Your task to perform on an android device: create a new album in the google photos Image 0: 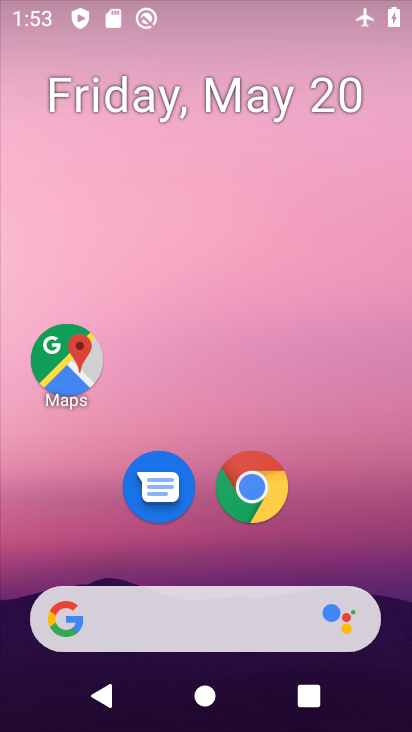
Step 0: drag from (251, 700) to (85, 244)
Your task to perform on an android device: create a new album in the google photos Image 1: 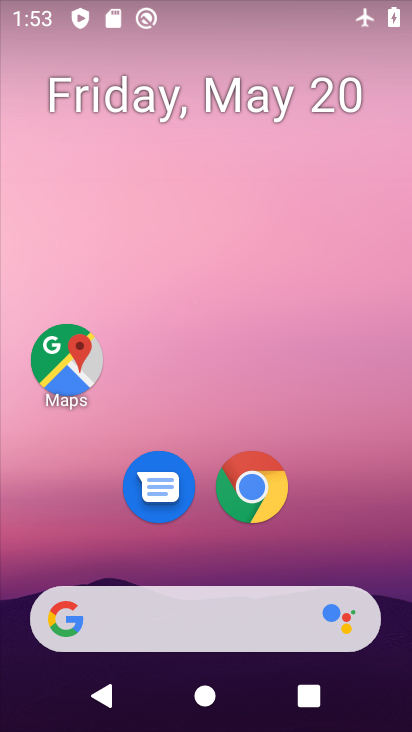
Step 1: drag from (259, 668) to (131, 130)
Your task to perform on an android device: create a new album in the google photos Image 2: 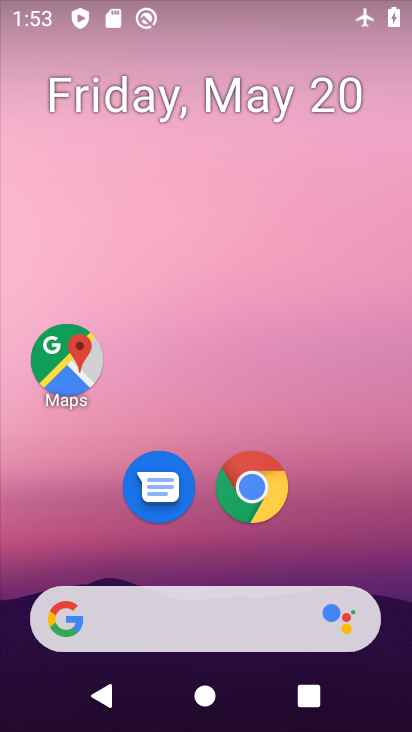
Step 2: drag from (245, 665) to (79, 4)
Your task to perform on an android device: create a new album in the google photos Image 3: 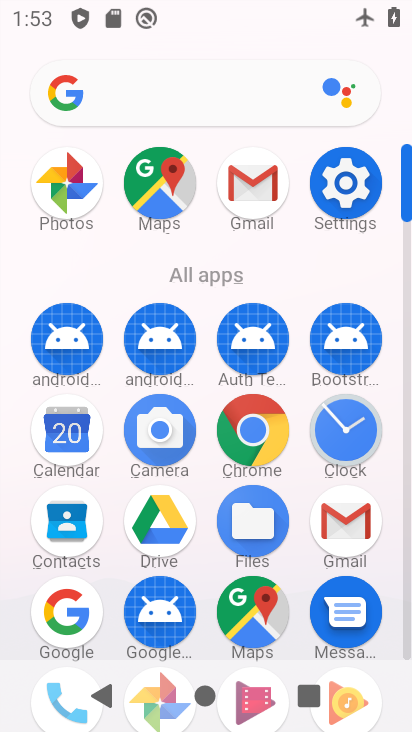
Step 3: drag from (202, 585) to (180, 110)
Your task to perform on an android device: create a new album in the google photos Image 4: 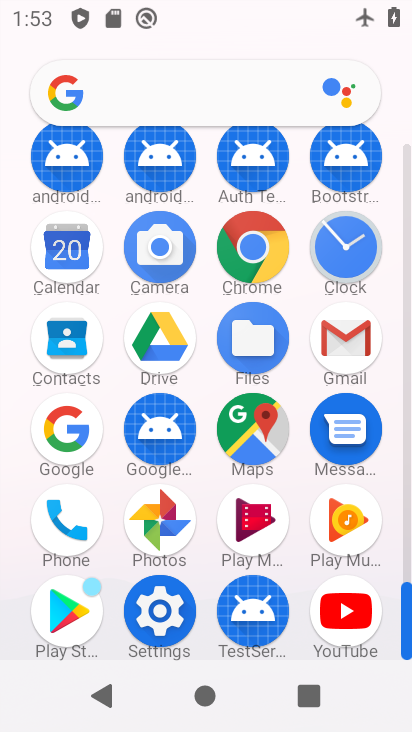
Step 4: drag from (182, 495) to (119, 87)
Your task to perform on an android device: create a new album in the google photos Image 5: 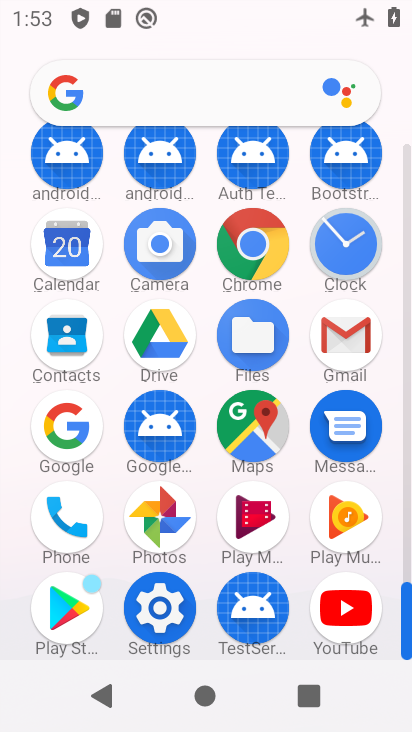
Step 5: click (165, 509)
Your task to perform on an android device: create a new album in the google photos Image 6: 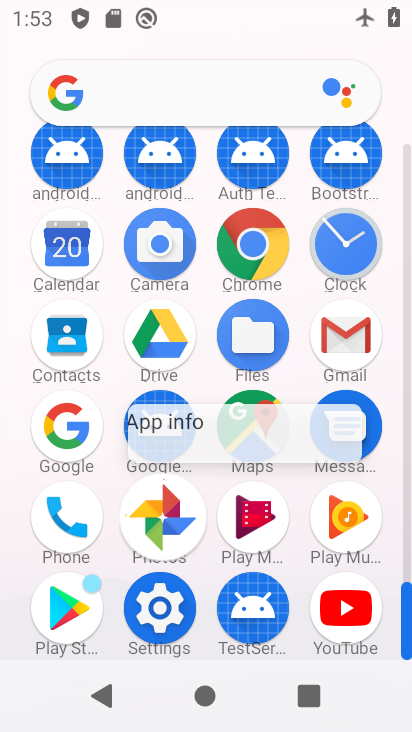
Step 6: click (167, 505)
Your task to perform on an android device: create a new album in the google photos Image 7: 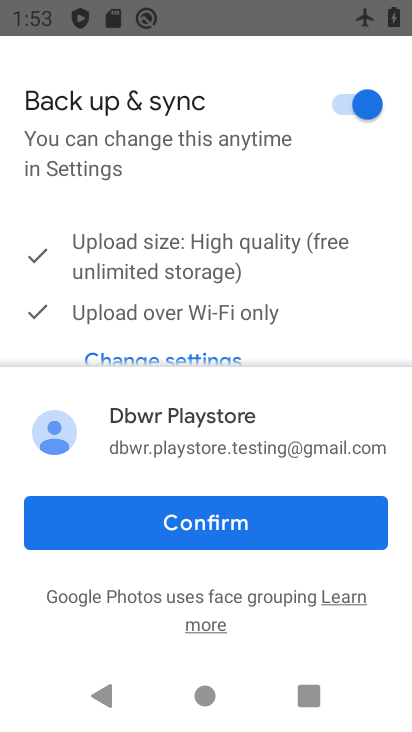
Step 7: click (217, 553)
Your task to perform on an android device: create a new album in the google photos Image 8: 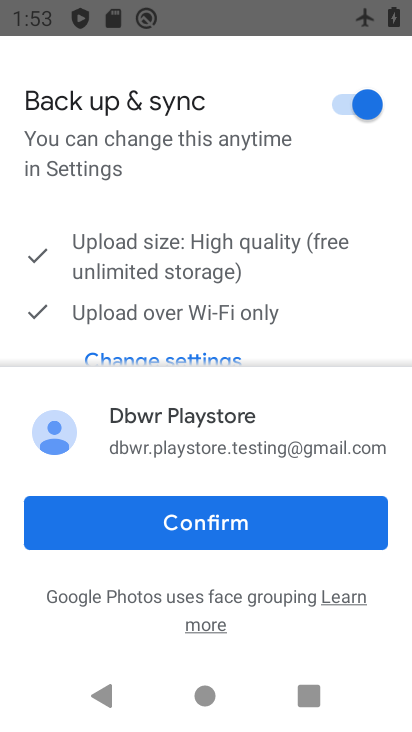
Step 8: click (246, 531)
Your task to perform on an android device: create a new album in the google photos Image 9: 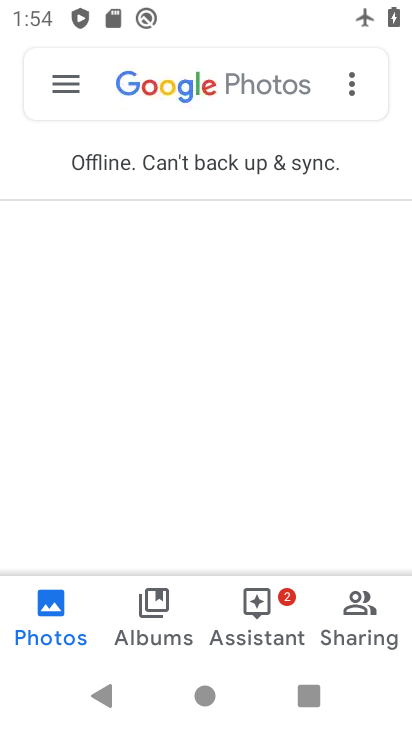
Step 9: click (160, 599)
Your task to perform on an android device: create a new album in the google photos Image 10: 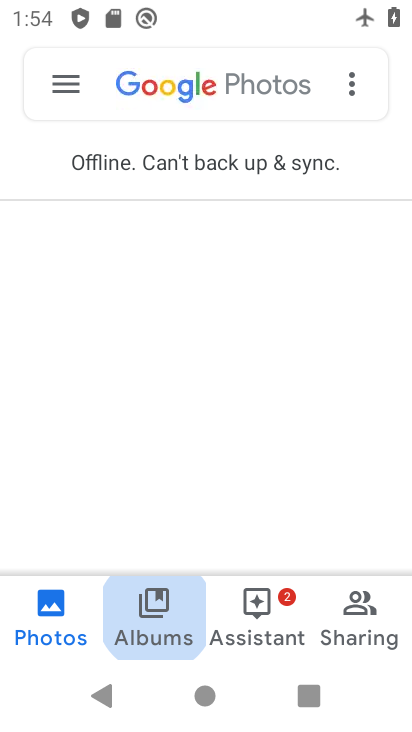
Step 10: click (147, 589)
Your task to perform on an android device: create a new album in the google photos Image 11: 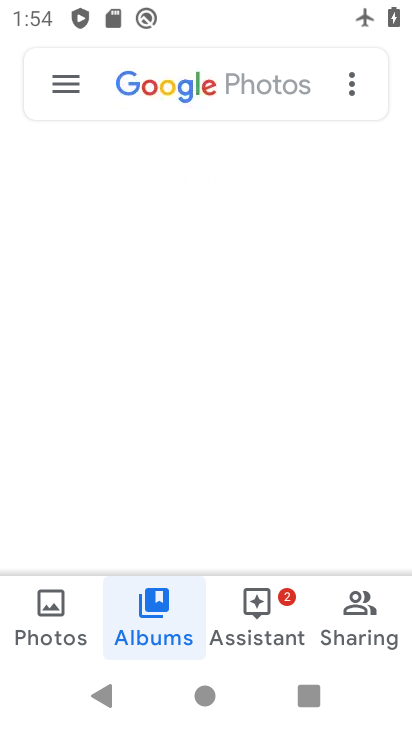
Step 11: click (140, 572)
Your task to perform on an android device: create a new album in the google photos Image 12: 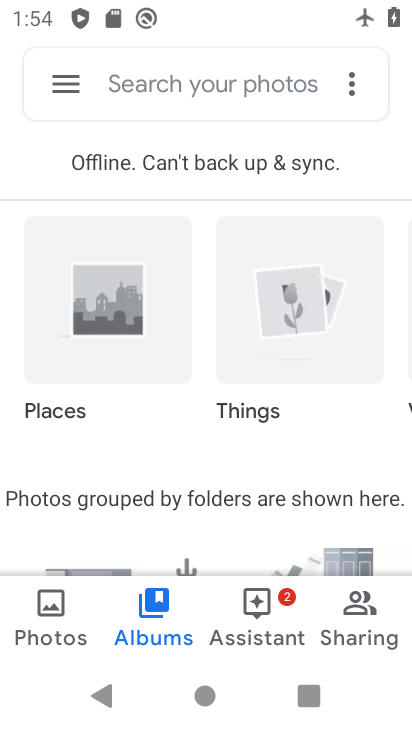
Step 12: task complete